Your task to perform on an android device: Go to Amazon Image 0: 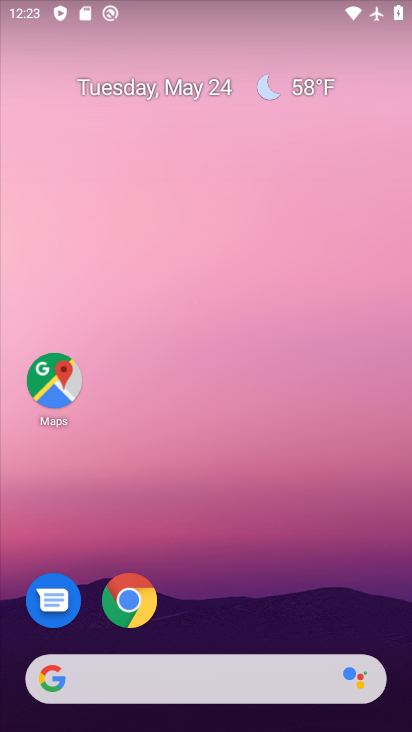
Step 0: click (126, 602)
Your task to perform on an android device: Go to Amazon Image 1: 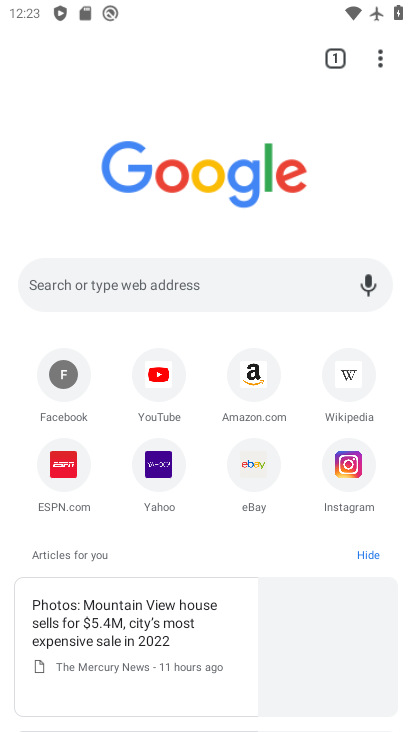
Step 1: click (251, 372)
Your task to perform on an android device: Go to Amazon Image 2: 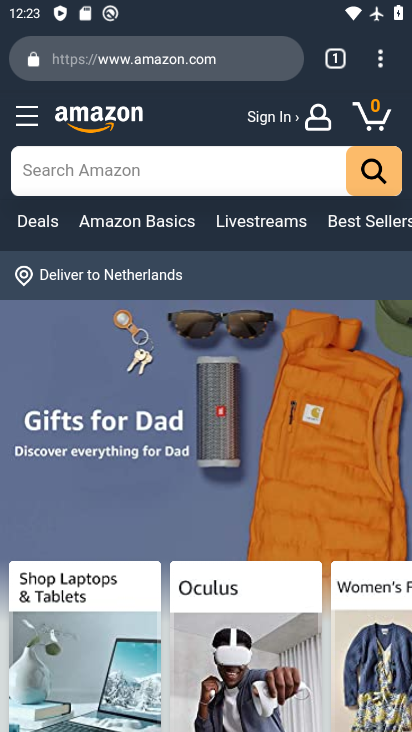
Step 2: task complete